Your task to perform on an android device: check android version Image 0: 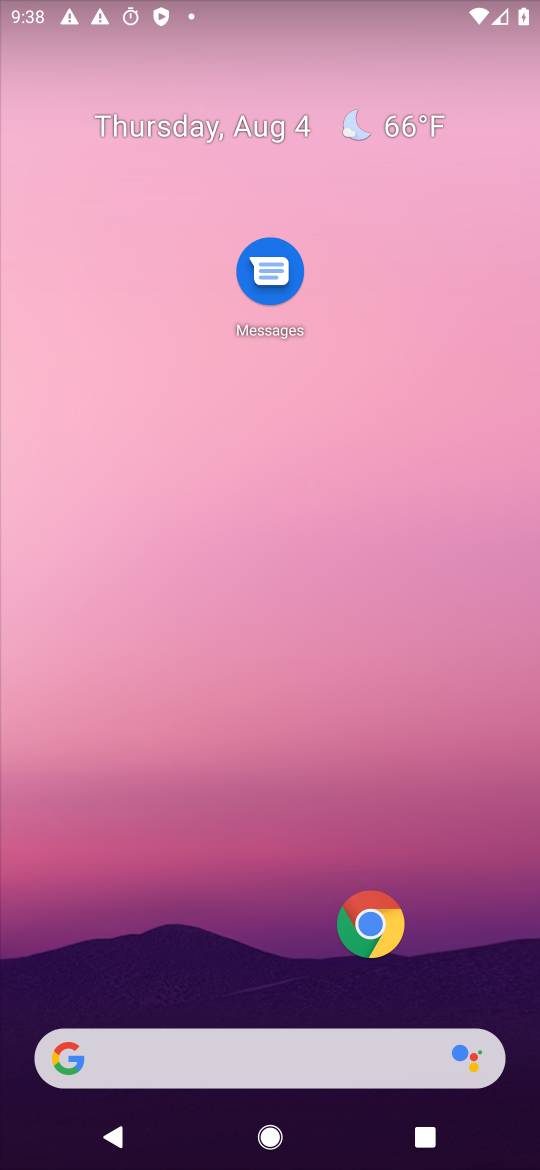
Step 0: drag from (236, 965) to (229, 367)
Your task to perform on an android device: check android version Image 1: 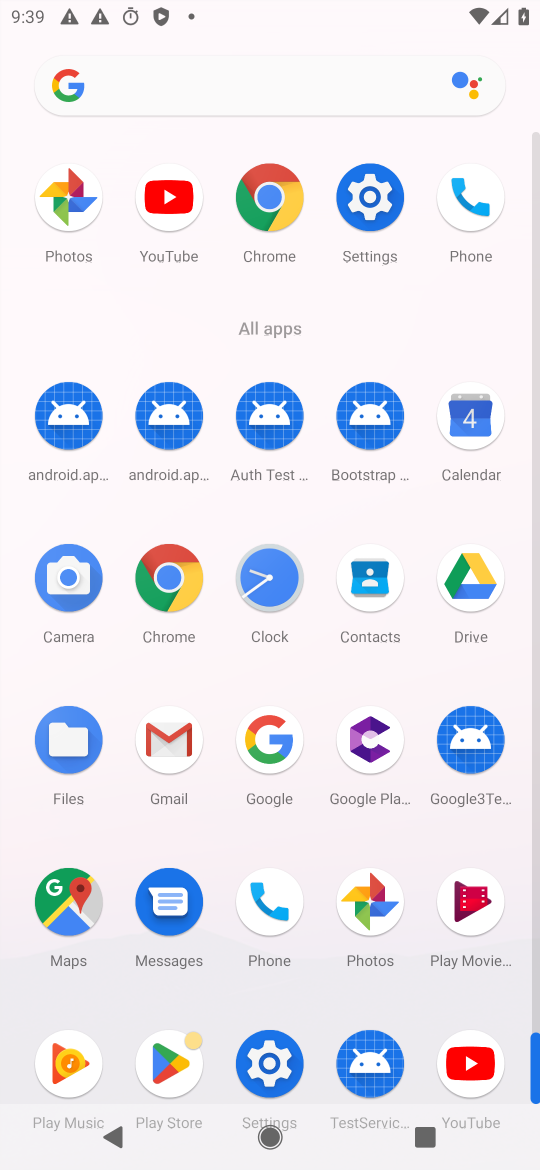
Step 1: click (270, 1054)
Your task to perform on an android device: check android version Image 2: 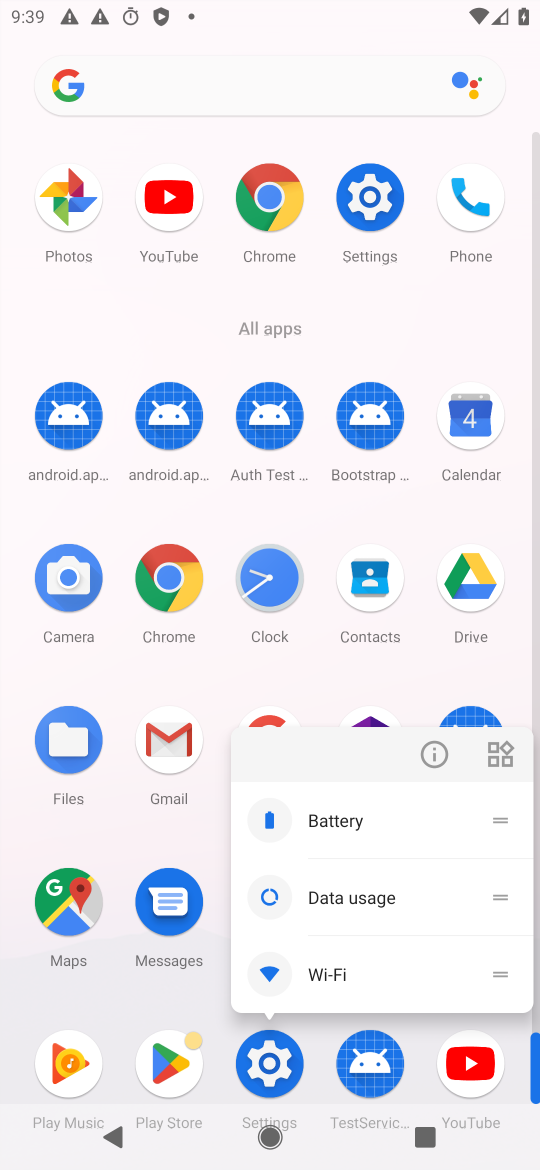
Step 2: click (443, 752)
Your task to perform on an android device: check android version Image 3: 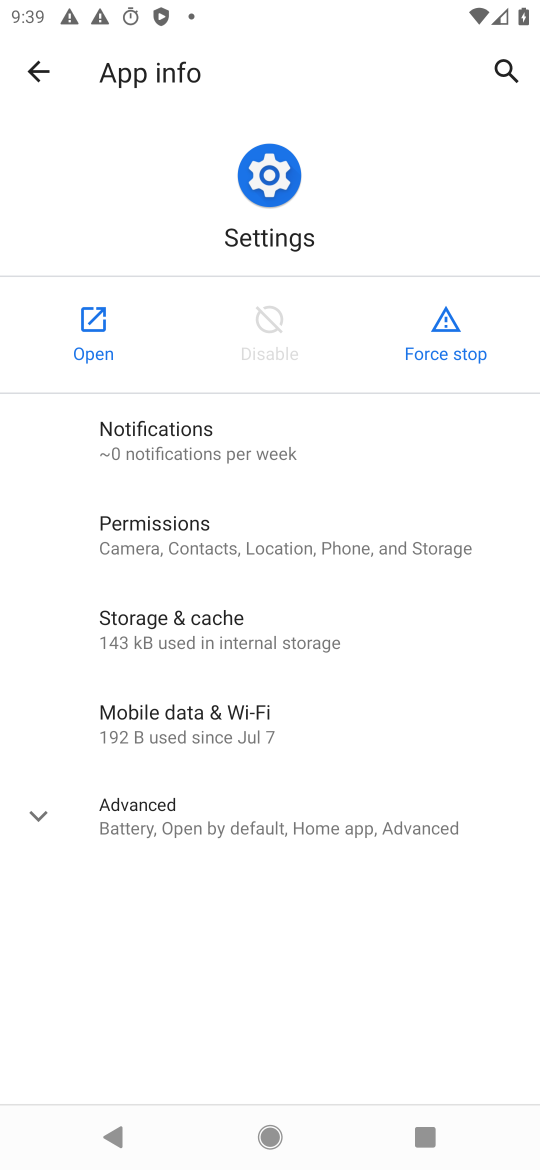
Step 3: click (80, 315)
Your task to perform on an android device: check android version Image 4: 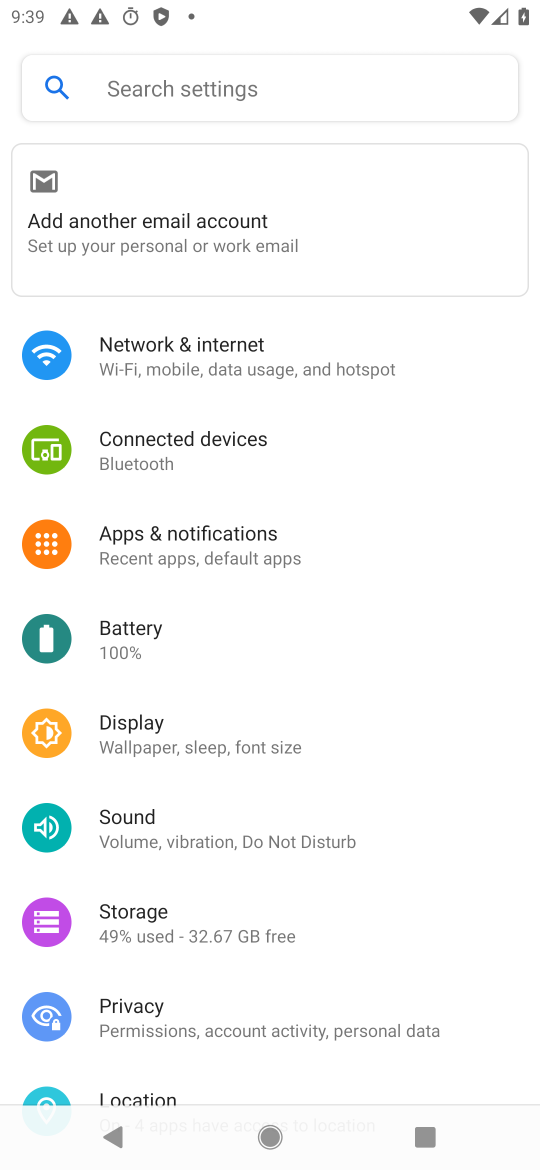
Step 4: drag from (205, 950) to (258, 466)
Your task to perform on an android device: check android version Image 5: 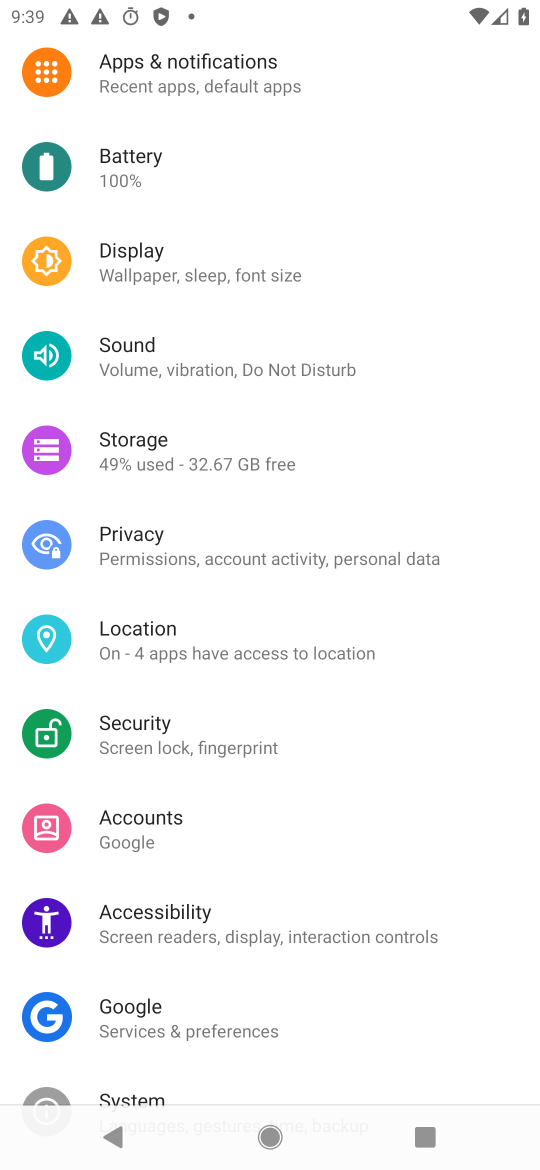
Step 5: drag from (186, 1057) to (250, 300)
Your task to perform on an android device: check android version Image 6: 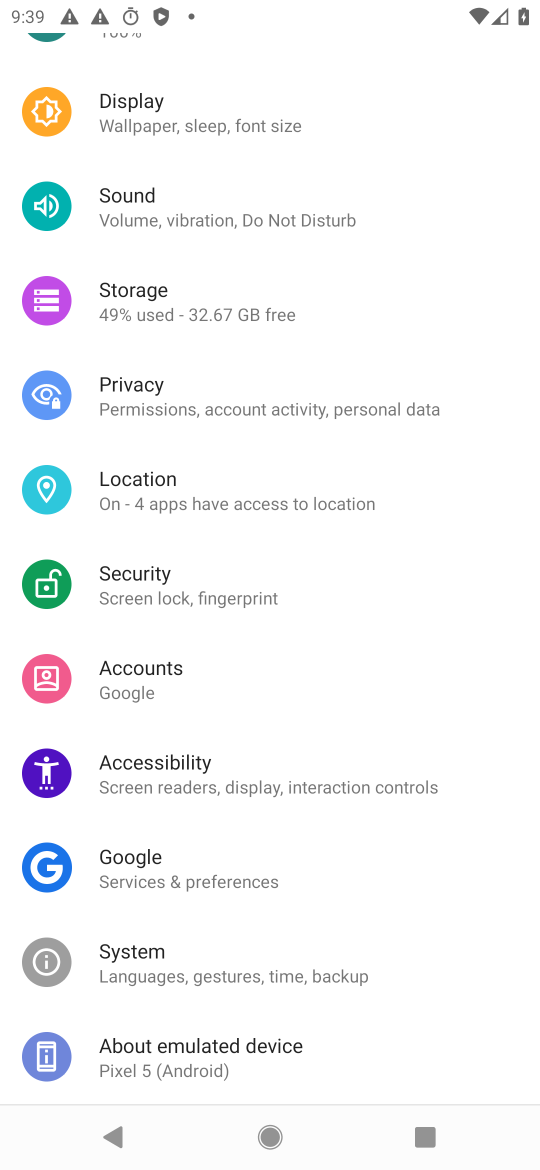
Step 6: click (235, 1048)
Your task to perform on an android device: check android version Image 7: 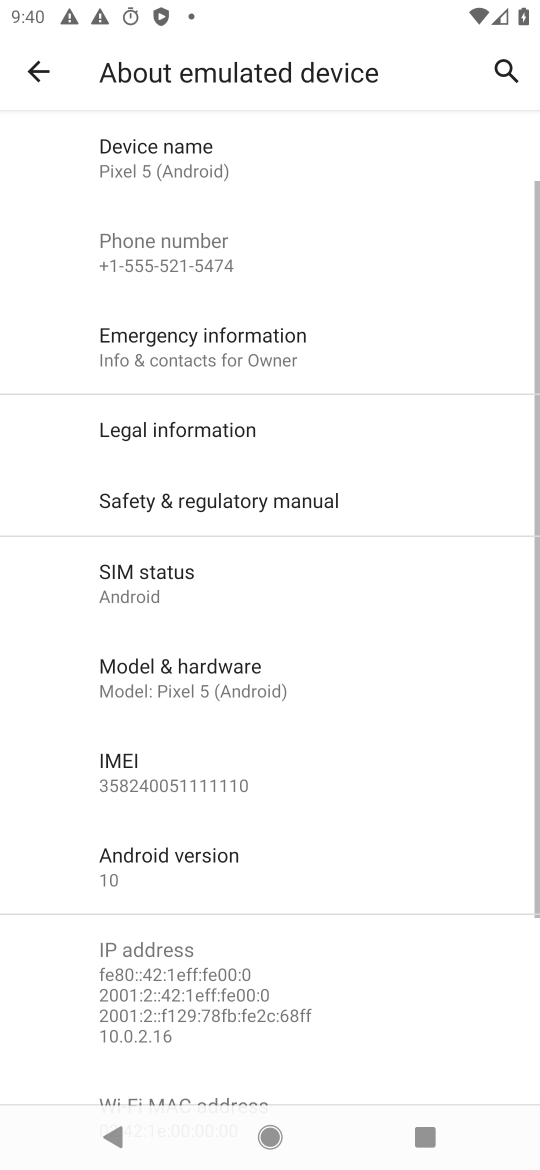
Step 7: drag from (307, 963) to (350, 325)
Your task to perform on an android device: check android version Image 8: 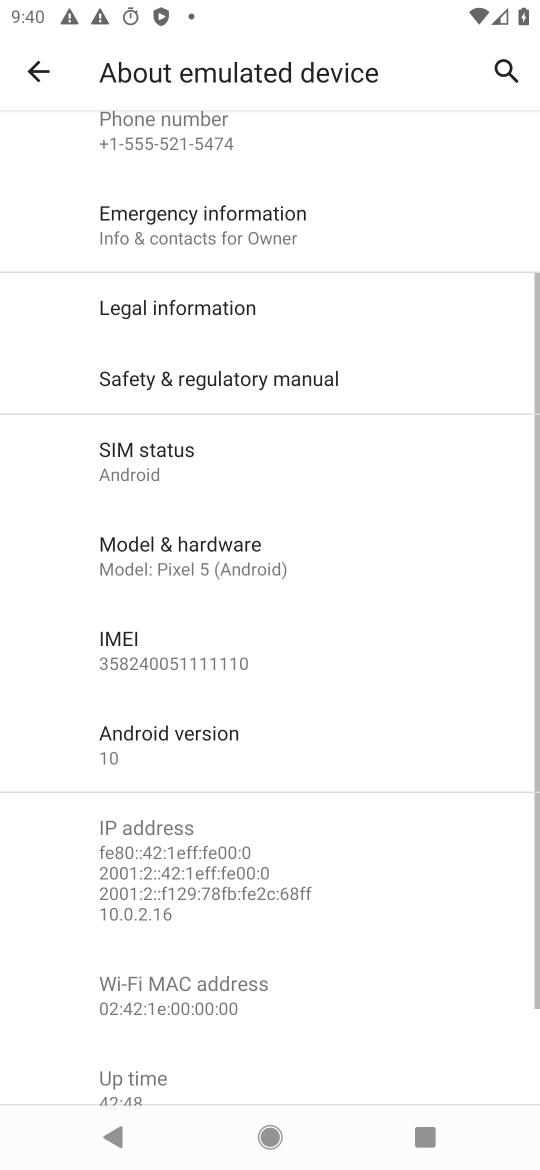
Step 8: drag from (351, 268) to (371, 1158)
Your task to perform on an android device: check android version Image 9: 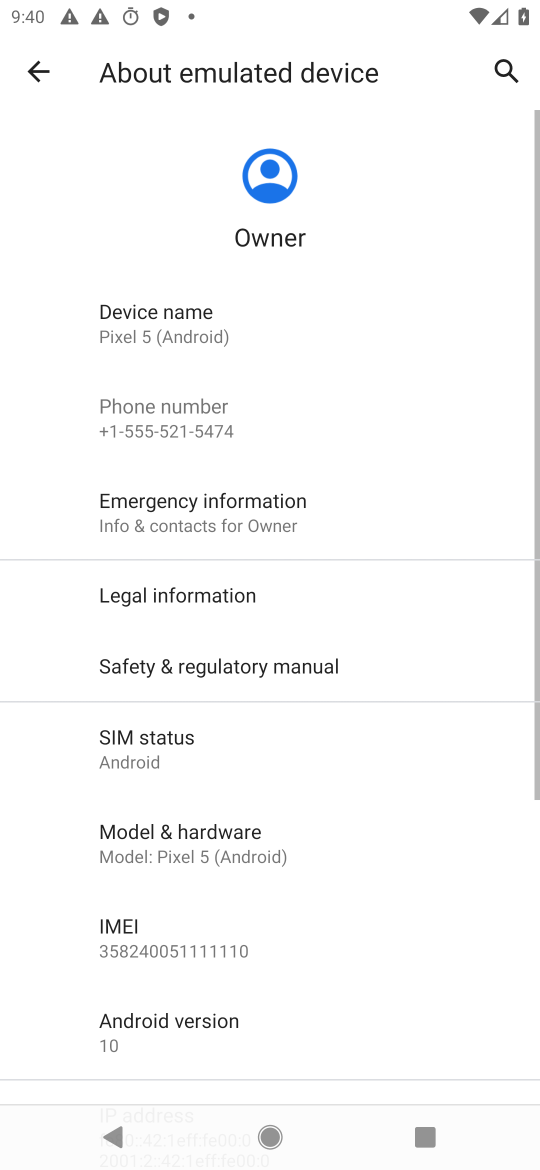
Step 9: drag from (304, 916) to (360, 365)
Your task to perform on an android device: check android version Image 10: 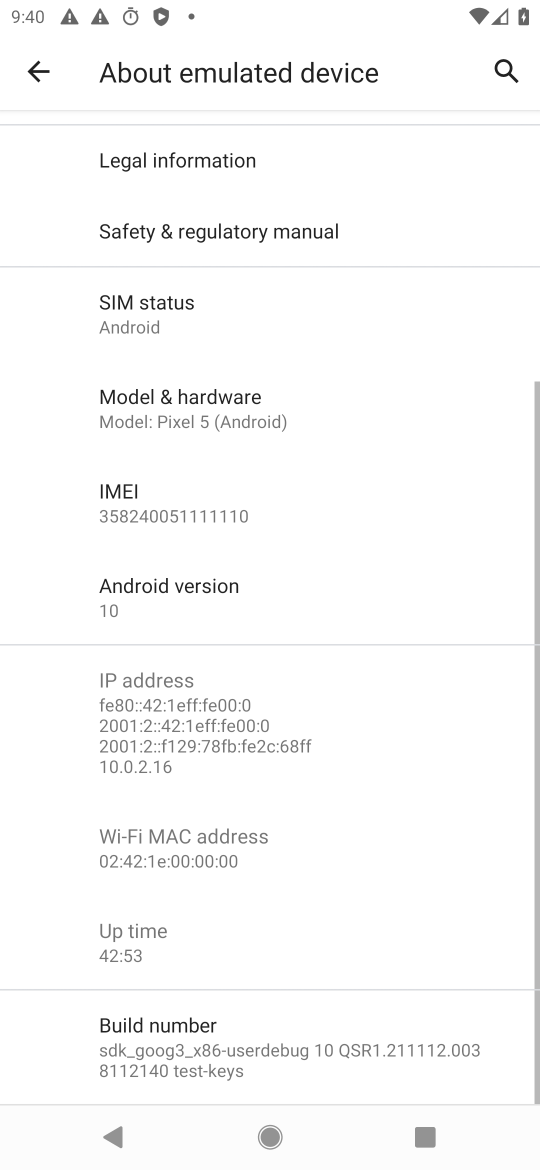
Step 10: drag from (270, 813) to (324, 293)
Your task to perform on an android device: check android version Image 11: 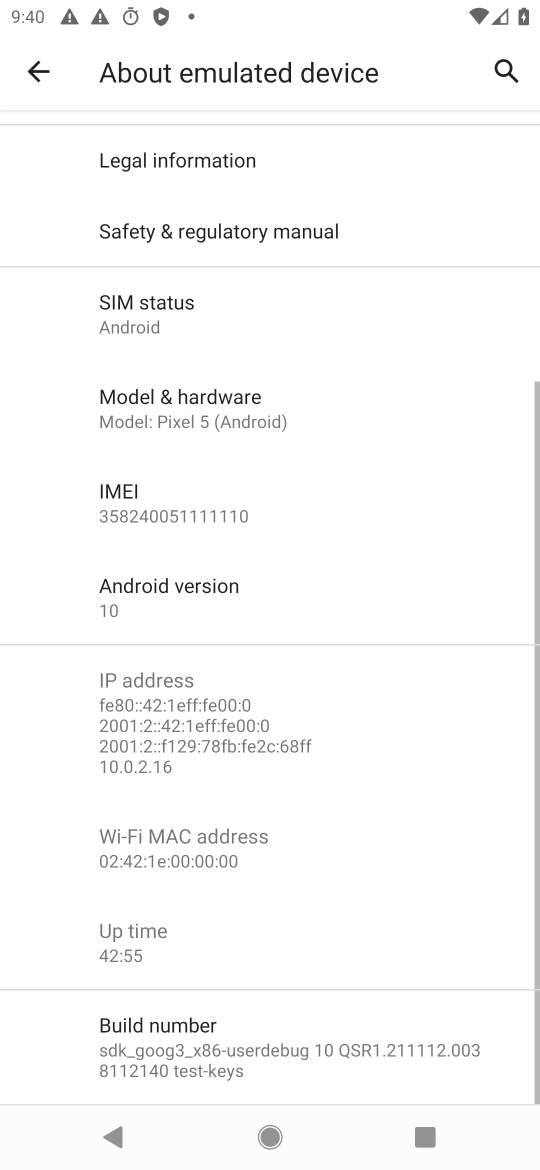
Step 11: click (204, 580)
Your task to perform on an android device: check android version Image 12: 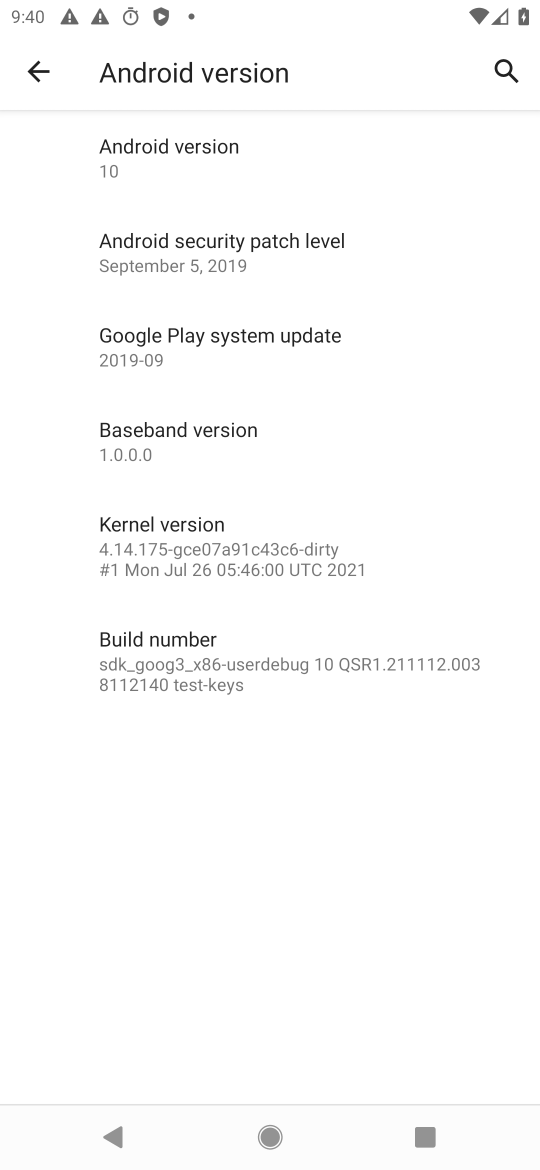
Step 12: click (244, 154)
Your task to perform on an android device: check android version Image 13: 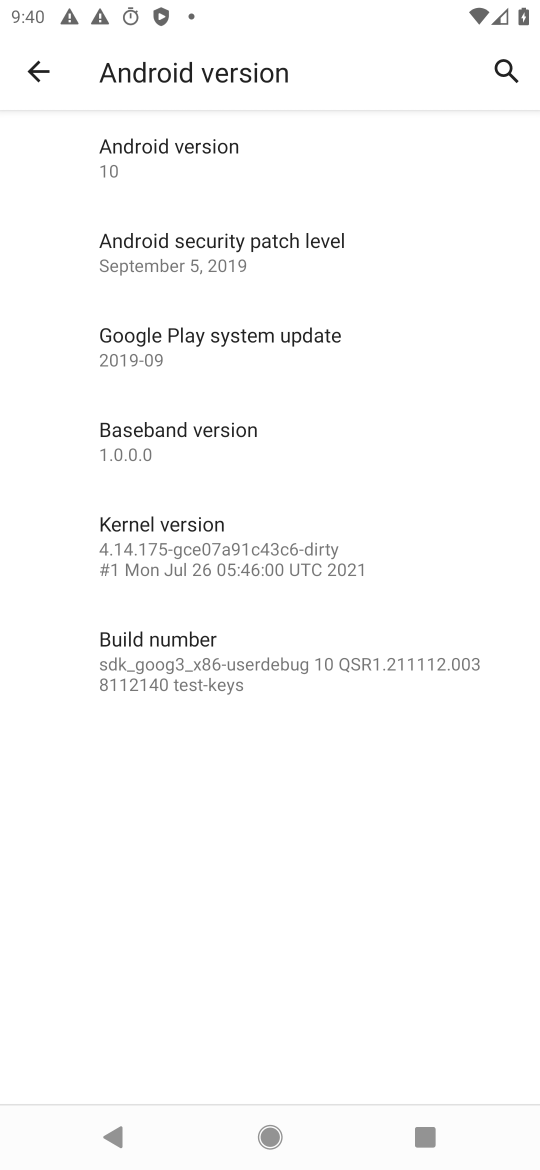
Step 13: click (244, 154)
Your task to perform on an android device: check android version Image 14: 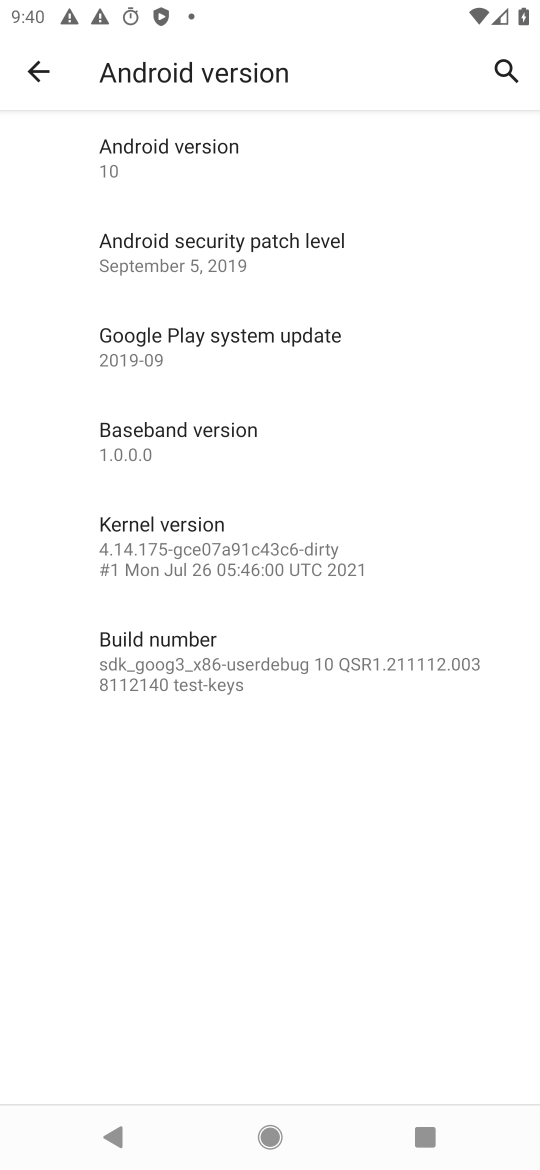
Step 14: click (244, 154)
Your task to perform on an android device: check android version Image 15: 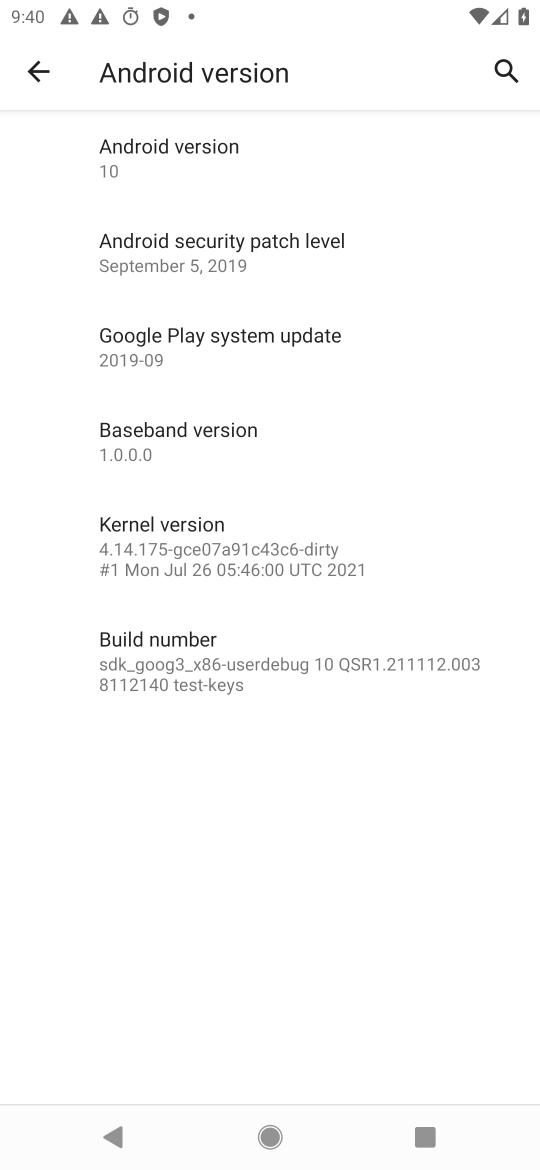
Step 15: task complete